Your task to perform on an android device: turn off notifications in google photos Image 0: 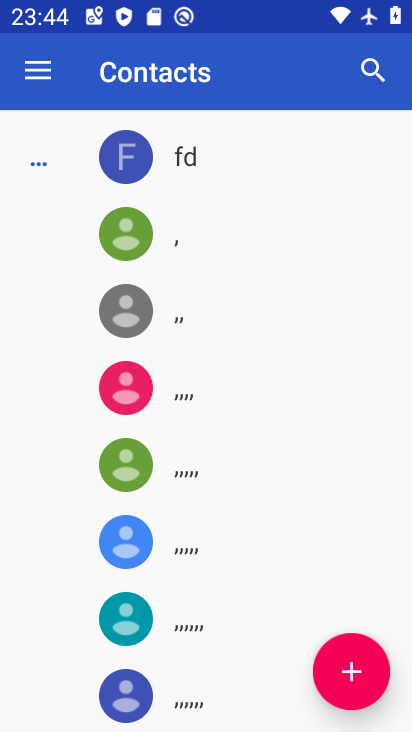
Step 0: press home button
Your task to perform on an android device: turn off notifications in google photos Image 1: 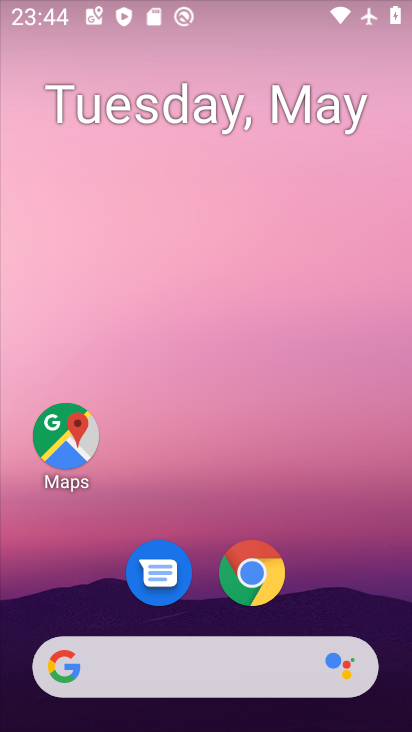
Step 1: drag from (261, 558) to (241, 273)
Your task to perform on an android device: turn off notifications in google photos Image 2: 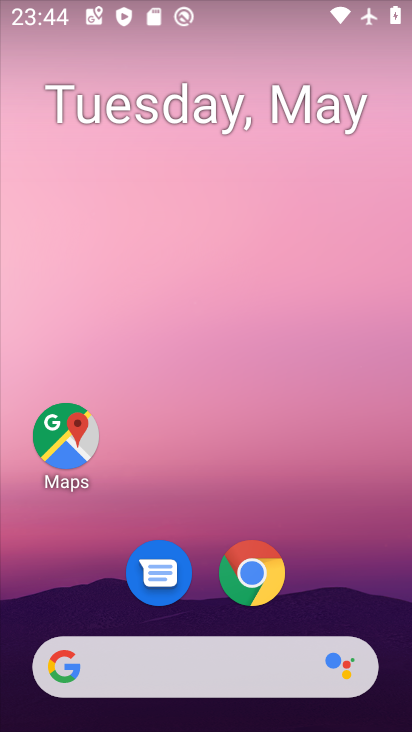
Step 2: drag from (207, 427) to (211, 212)
Your task to perform on an android device: turn off notifications in google photos Image 3: 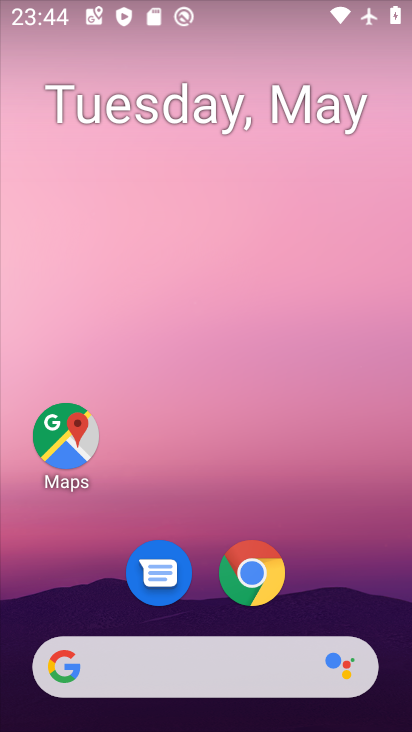
Step 3: drag from (332, 595) to (306, 270)
Your task to perform on an android device: turn off notifications in google photos Image 4: 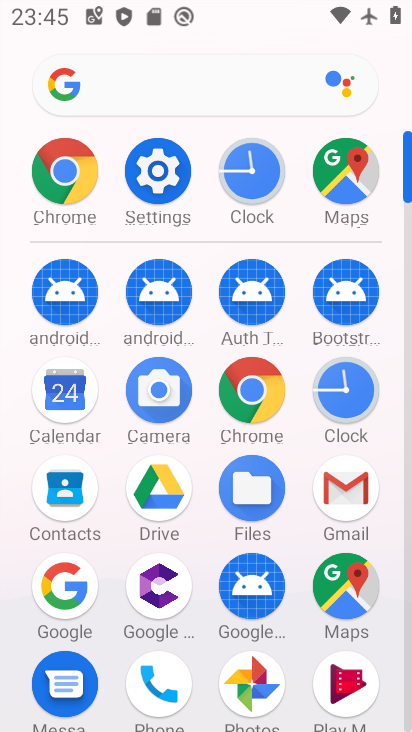
Step 4: click (247, 669)
Your task to perform on an android device: turn off notifications in google photos Image 5: 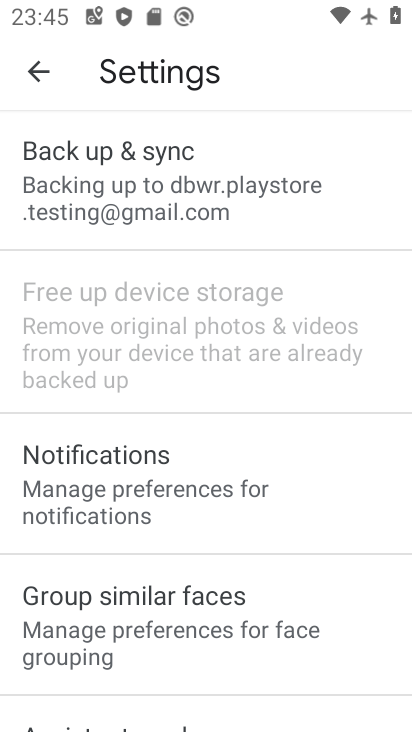
Step 5: click (164, 476)
Your task to perform on an android device: turn off notifications in google photos Image 6: 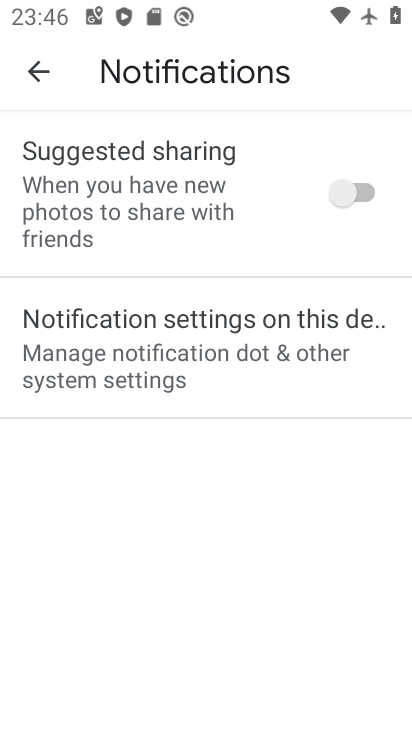
Step 6: click (245, 344)
Your task to perform on an android device: turn off notifications in google photos Image 7: 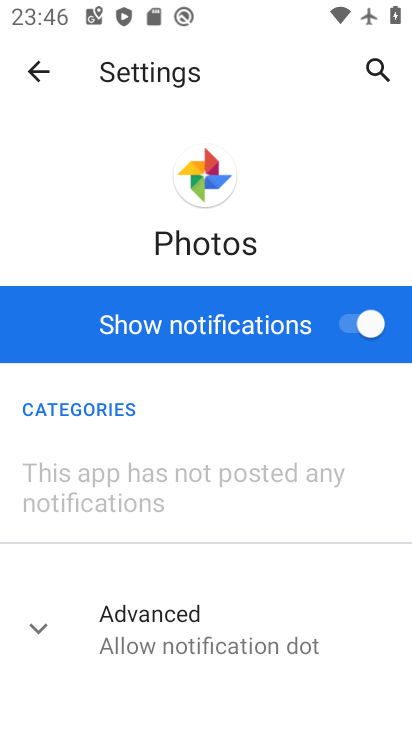
Step 7: click (359, 315)
Your task to perform on an android device: turn off notifications in google photos Image 8: 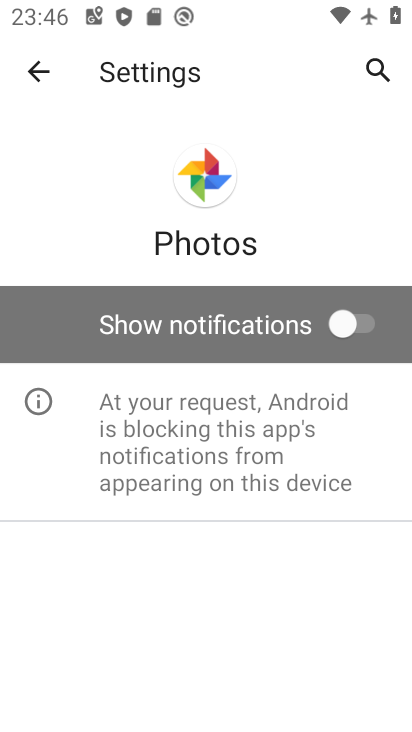
Step 8: task complete